Your task to perform on an android device: turn on sleep mode Image 0: 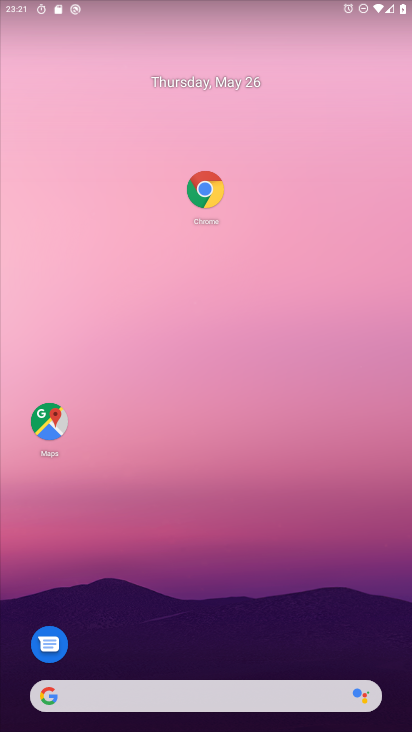
Step 0: drag from (178, 575) to (177, 124)
Your task to perform on an android device: turn on sleep mode Image 1: 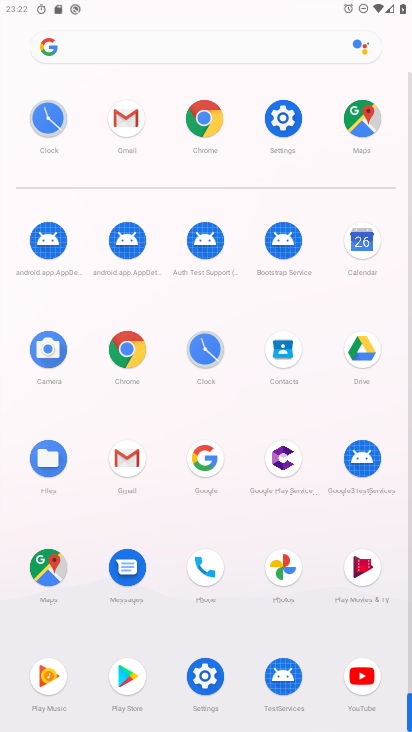
Step 1: click (308, 123)
Your task to perform on an android device: turn on sleep mode Image 2: 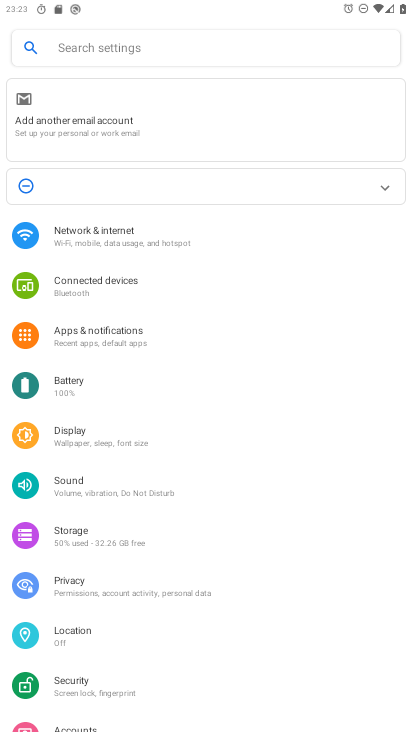
Step 2: click (96, 440)
Your task to perform on an android device: turn on sleep mode Image 3: 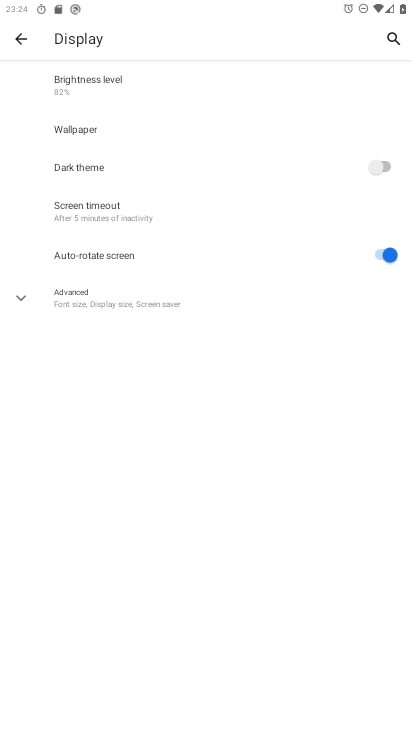
Step 3: task complete